Your task to perform on an android device: Open accessibility settings Image 0: 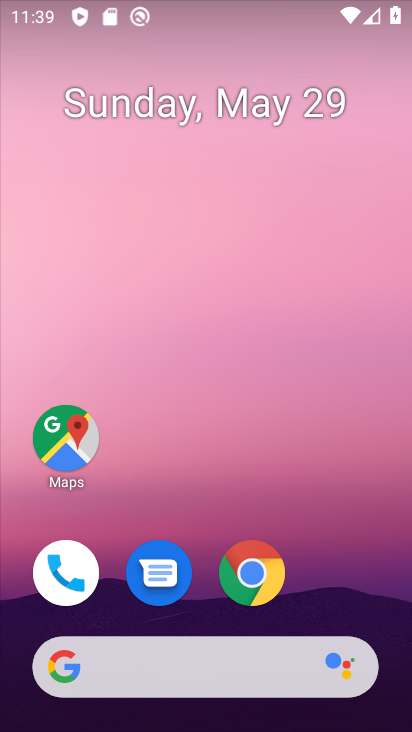
Step 0: drag from (350, 579) to (271, 74)
Your task to perform on an android device: Open accessibility settings Image 1: 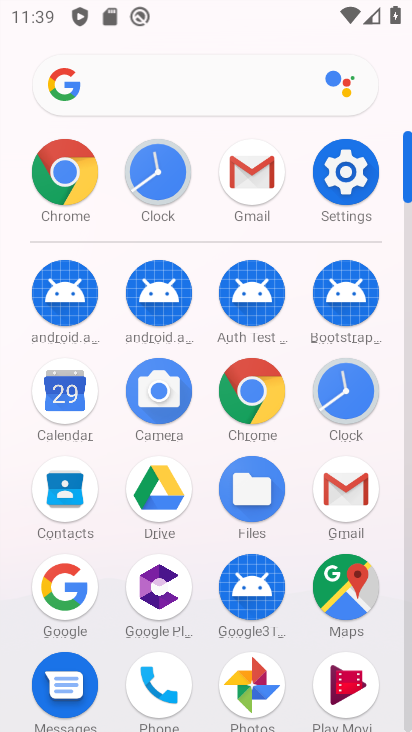
Step 1: click (358, 176)
Your task to perform on an android device: Open accessibility settings Image 2: 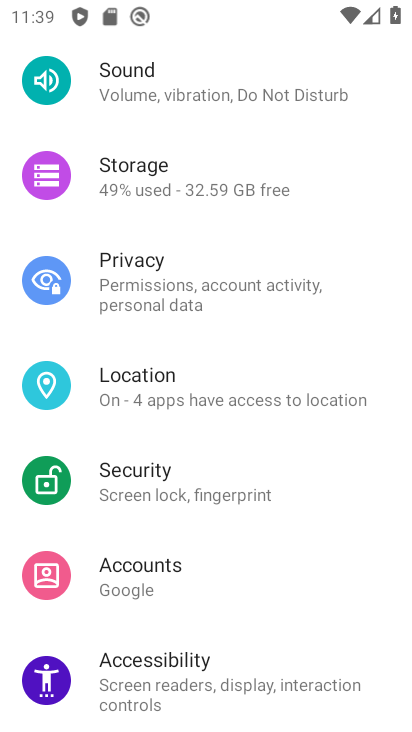
Step 2: click (209, 675)
Your task to perform on an android device: Open accessibility settings Image 3: 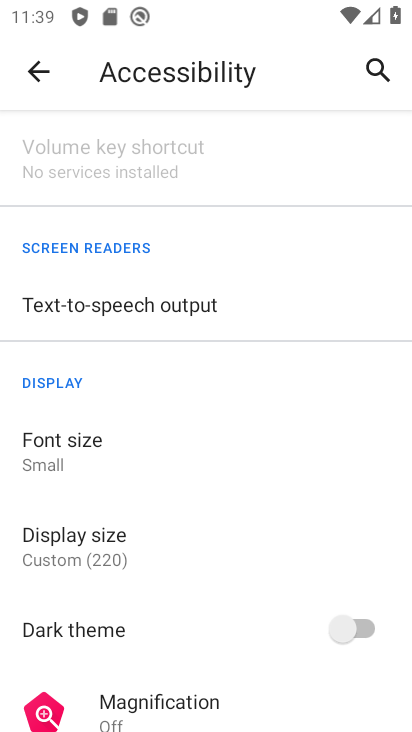
Step 3: task complete